Your task to perform on an android device: turn on bluetooth scan Image 0: 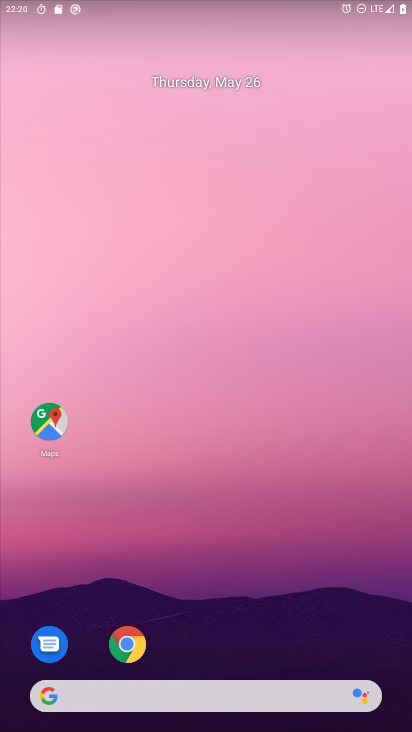
Step 0: drag from (207, 638) to (309, 243)
Your task to perform on an android device: turn on bluetooth scan Image 1: 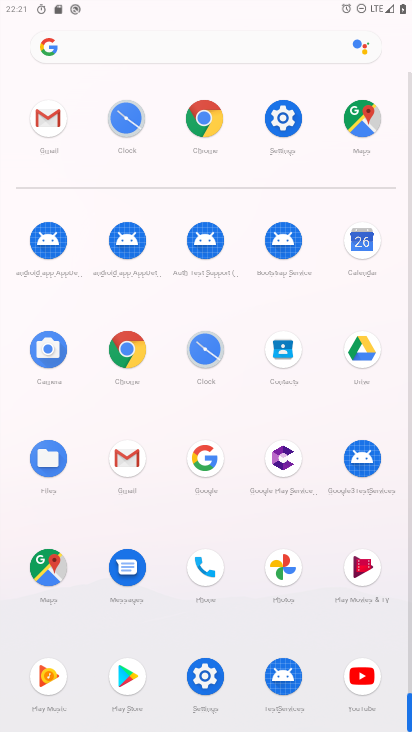
Step 1: drag from (256, 481) to (291, 242)
Your task to perform on an android device: turn on bluetooth scan Image 2: 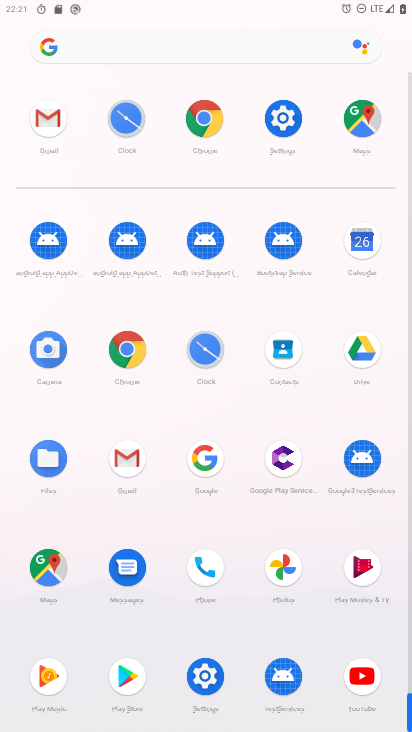
Step 2: click (275, 130)
Your task to perform on an android device: turn on bluetooth scan Image 3: 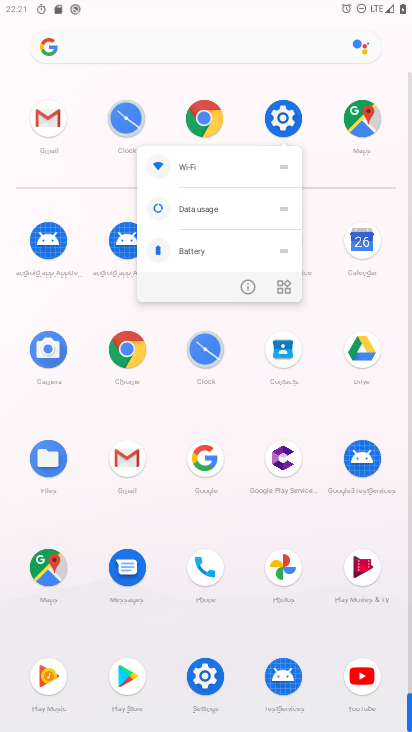
Step 3: click (262, 270)
Your task to perform on an android device: turn on bluetooth scan Image 4: 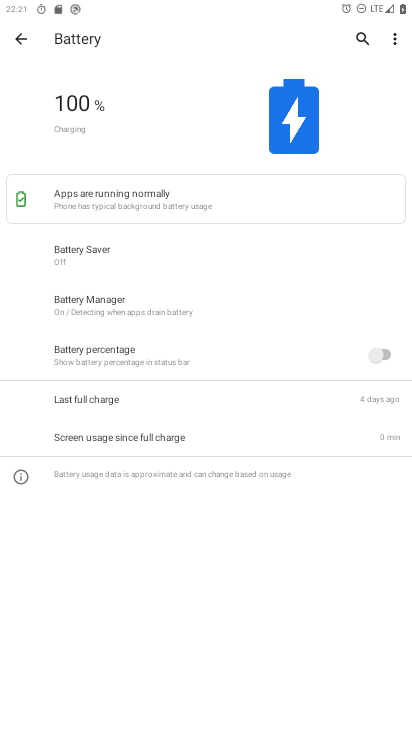
Step 4: click (12, 20)
Your task to perform on an android device: turn on bluetooth scan Image 5: 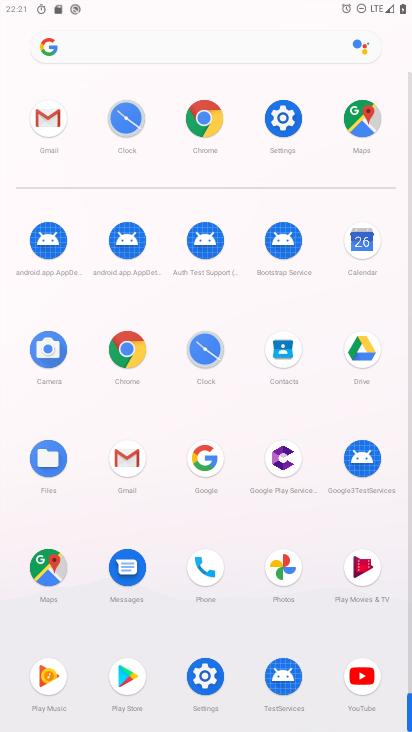
Step 5: click (281, 122)
Your task to perform on an android device: turn on bluetooth scan Image 6: 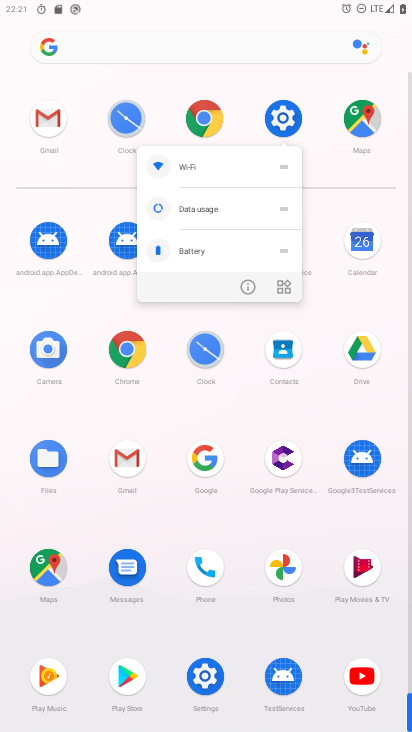
Step 6: click (249, 278)
Your task to perform on an android device: turn on bluetooth scan Image 7: 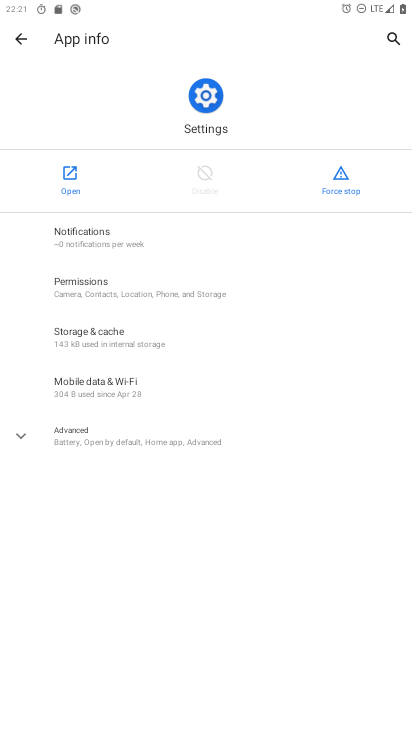
Step 7: click (75, 179)
Your task to perform on an android device: turn on bluetooth scan Image 8: 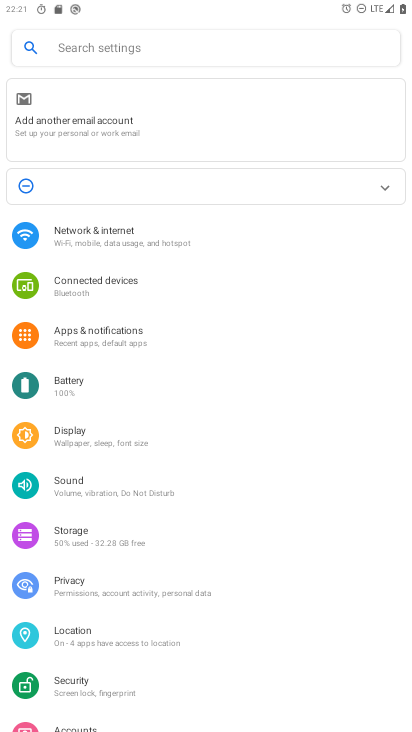
Step 8: click (108, 622)
Your task to perform on an android device: turn on bluetooth scan Image 9: 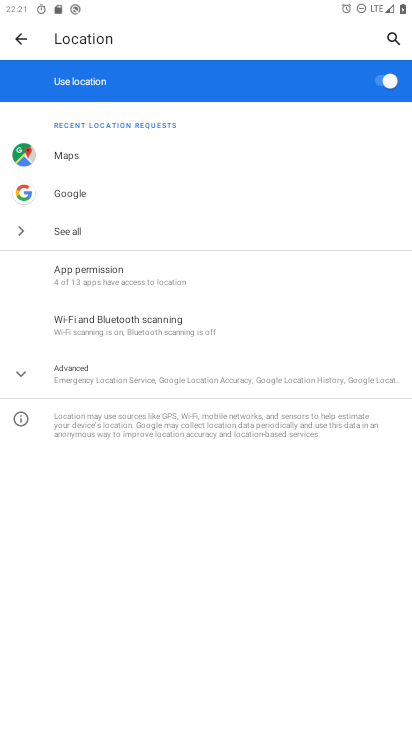
Step 9: click (128, 322)
Your task to perform on an android device: turn on bluetooth scan Image 10: 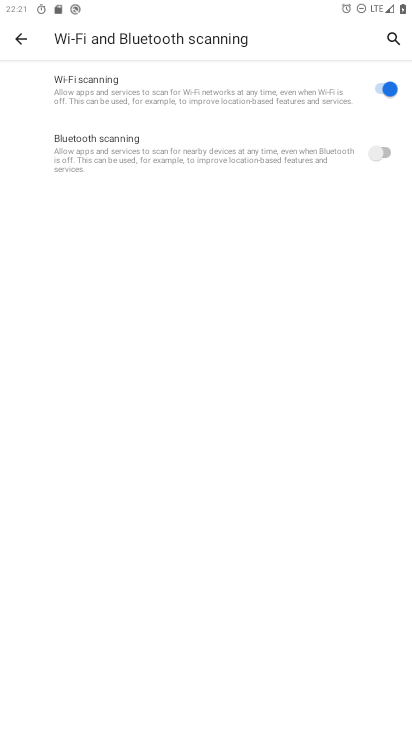
Step 10: click (375, 154)
Your task to perform on an android device: turn on bluetooth scan Image 11: 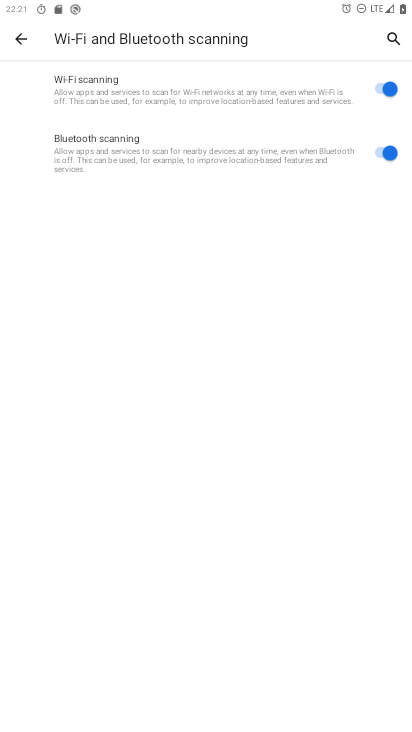
Step 11: task complete